Your task to perform on an android device: toggle notifications settings in the gmail app Image 0: 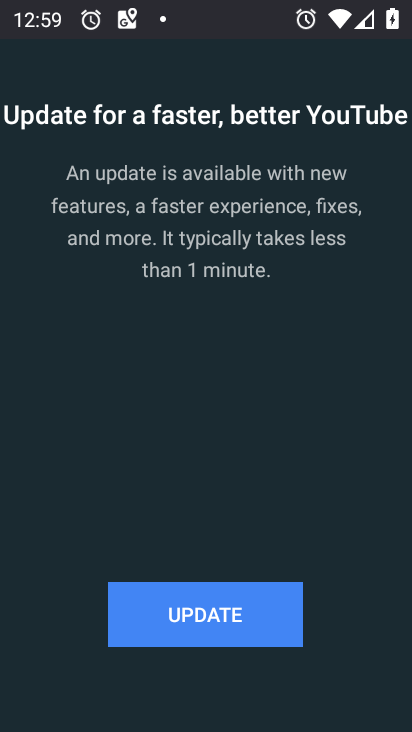
Step 0: press home button
Your task to perform on an android device: toggle notifications settings in the gmail app Image 1: 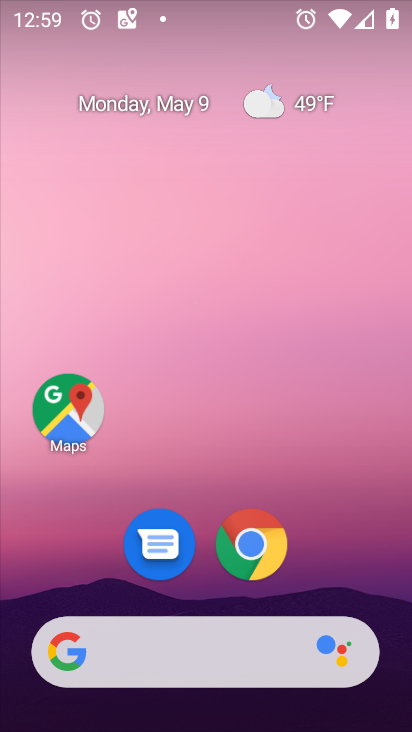
Step 1: drag from (258, 619) to (226, 64)
Your task to perform on an android device: toggle notifications settings in the gmail app Image 2: 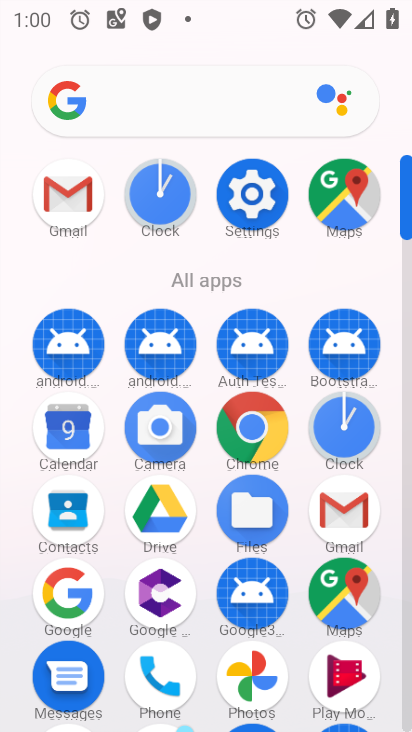
Step 2: click (333, 500)
Your task to perform on an android device: toggle notifications settings in the gmail app Image 3: 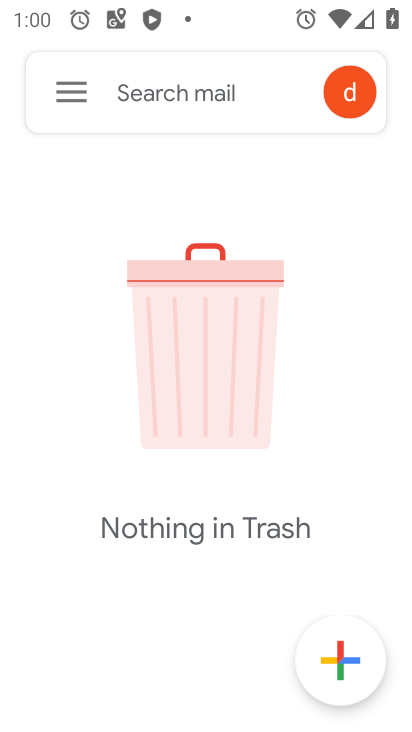
Step 3: click (79, 73)
Your task to perform on an android device: toggle notifications settings in the gmail app Image 4: 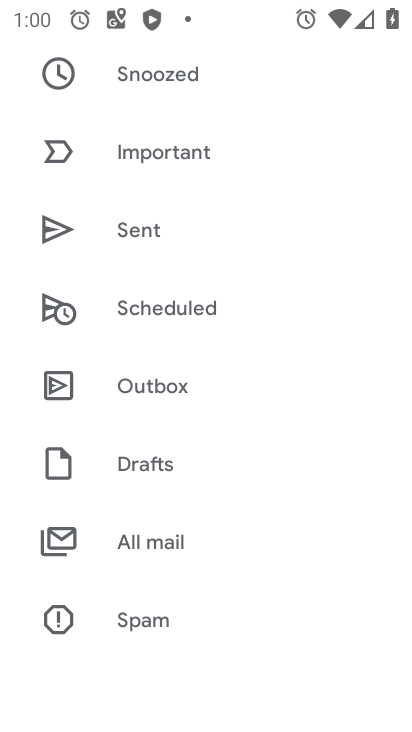
Step 4: drag from (185, 542) to (158, 67)
Your task to perform on an android device: toggle notifications settings in the gmail app Image 5: 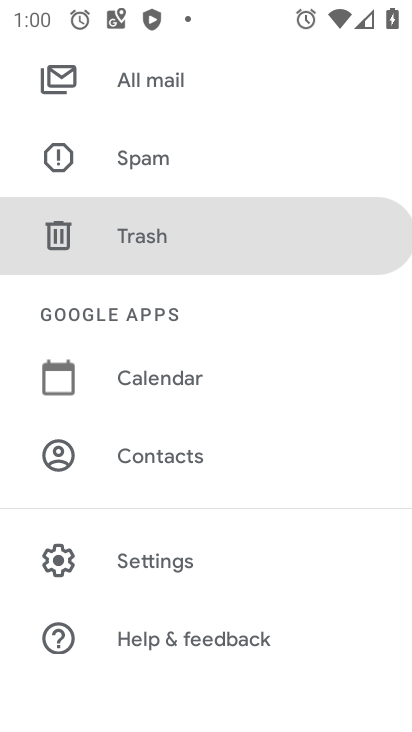
Step 5: click (189, 550)
Your task to perform on an android device: toggle notifications settings in the gmail app Image 6: 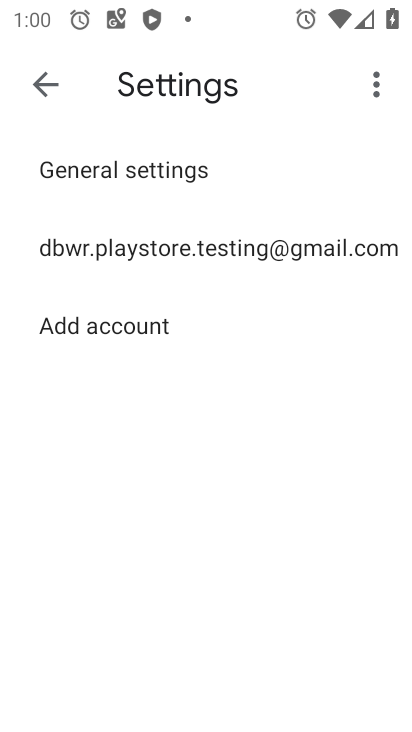
Step 6: click (191, 250)
Your task to perform on an android device: toggle notifications settings in the gmail app Image 7: 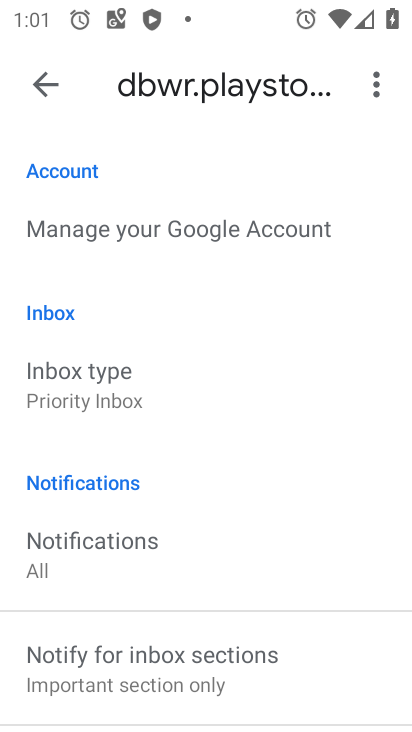
Step 7: drag from (181, 610) to (168, 121)
Your task to perform on an android device: toggle notifications settings in the gmail app Image 8: 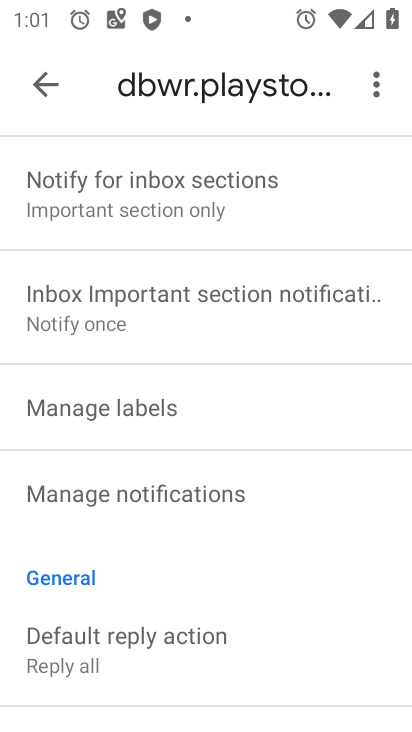
Step 8: click (231, 488)
Your task to perform on an android device: toggle notifications settings in the gmail app Image 9: 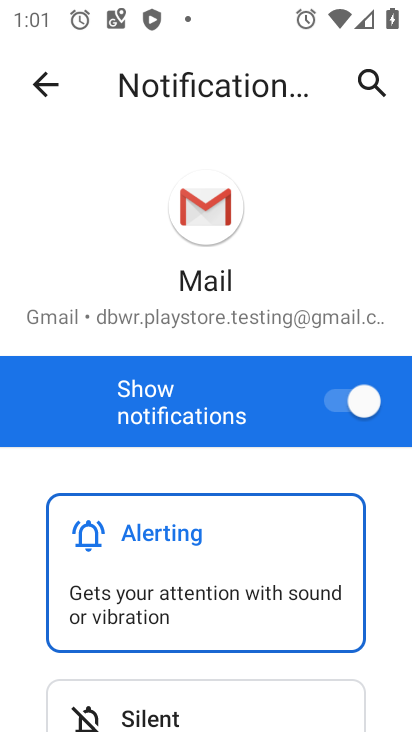
Step 9: click (341, 412)
Your task to perform on an android device: toggle notifications settings in the gmail app Image 10: 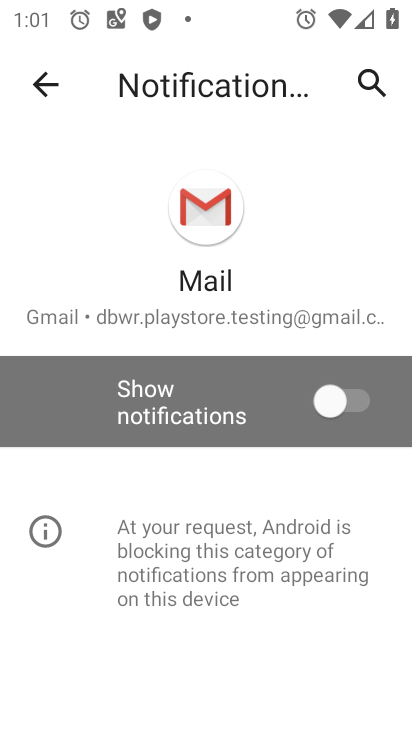
Step 10: task complete